Your task to perform on an android device: change notifications settings Image 0: 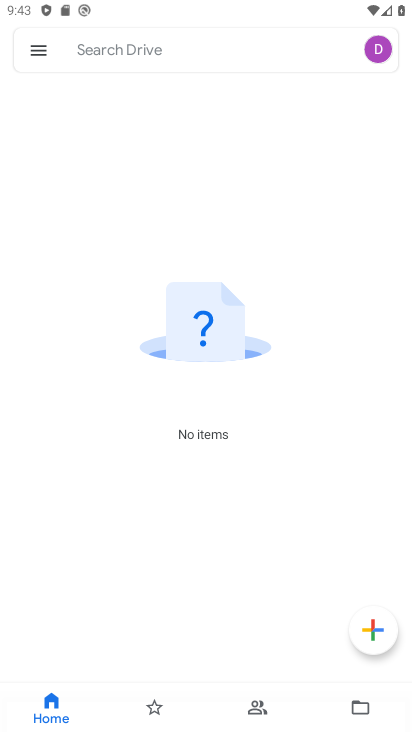
Step 0: press home button
Your task to perform on an android device: change notifications settings Image 1: 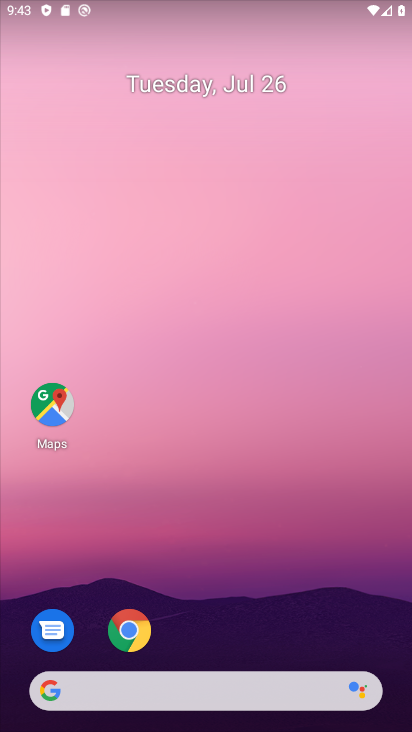
Step 1: drag from (374, 637) to (278, 66)
Your task to perform on an android device: change notifications settings Image 2: 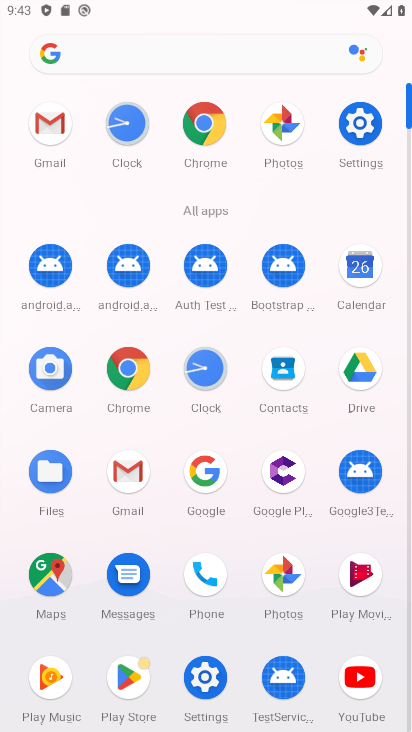
Step 2: click (205, 678)
Your task to perform on an android device: change notifications settings Image 3: 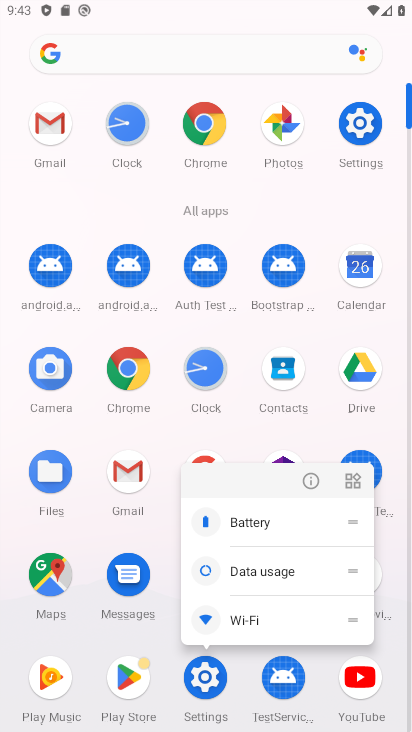
Step 3: click (203, 675)
Your task to perform on an android device: change notifications settings Image 4: 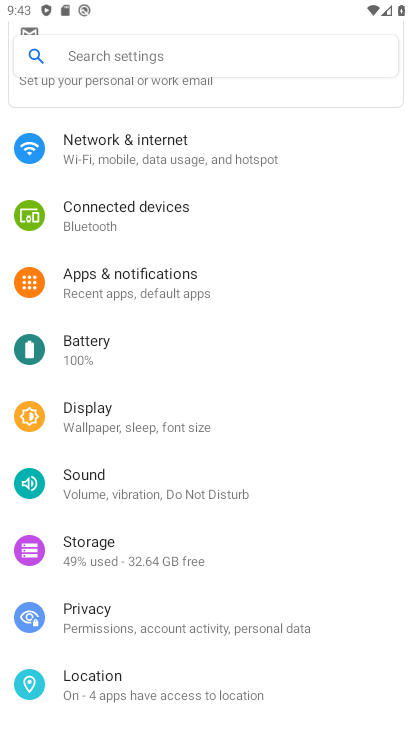
Step 4: click (107, 286)
Your task to perform on an android device: change notifications settings Image 5: 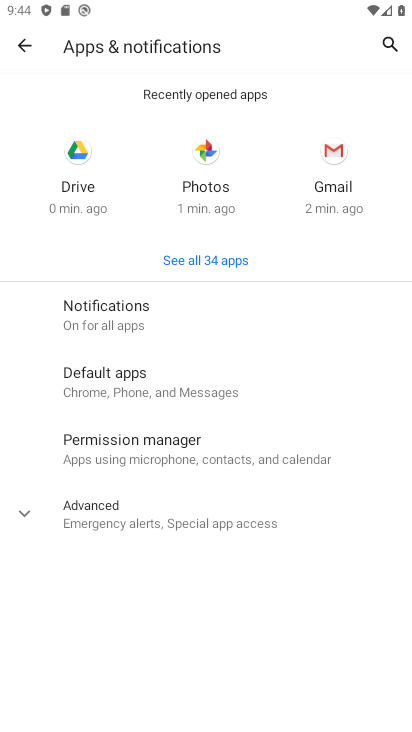
Step 5: click (99, 317)
Your task to perform on an android device: change notifications settings Image 6: 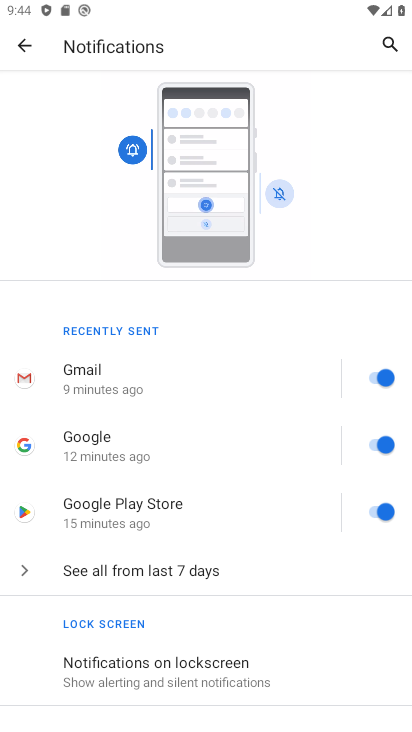
Step 6: drag from (259, 616) to (313, 177)
Your task to perform on an android device: change notifications settings Image 7: 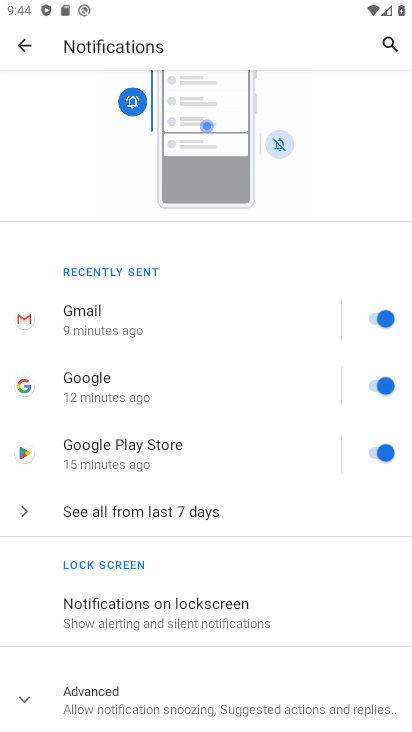
Step 7: click (21, 701)
Your task to perform on an android device: change notifications settings Image 8: 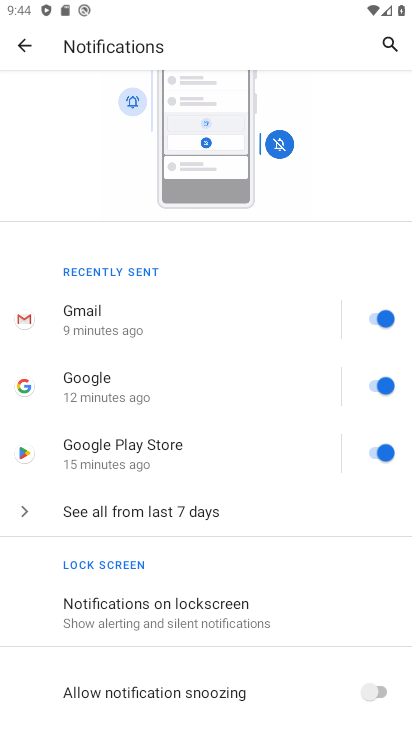
Step 8: task complete